Your task to perform on an android device: Open calendar and show me the third week of next month Image 0: 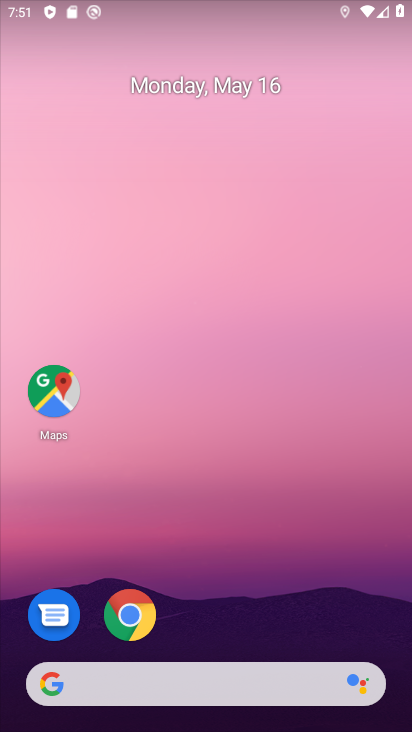
Step 0: click (247, 88)
Your task to perform on an android device: Open calendar and show me the third week of next month Image 1: 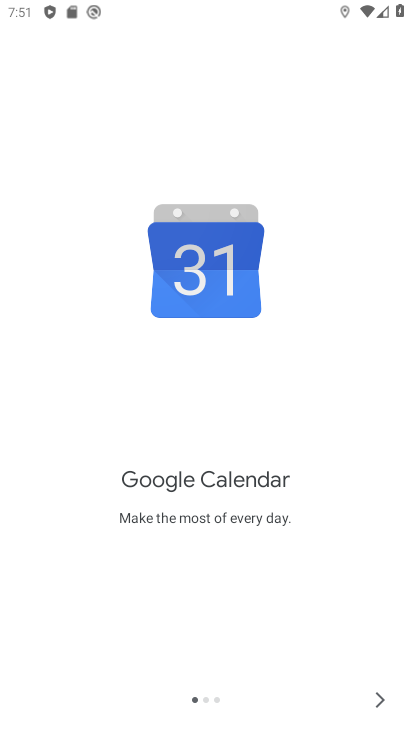
Step 1: click (385, 696)
Your task to perform on an android device: Open calendar and show me the third week of next month Image 2: 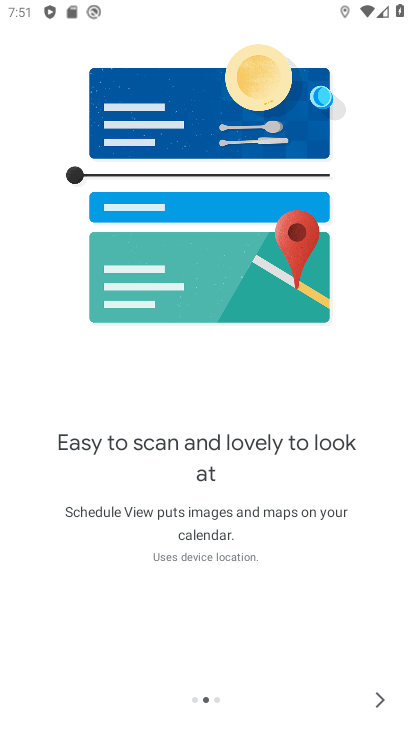
Step 2: click (385, 696)
Your task to perform on an android device: Open calendar and show me the third week of next month Image 3: 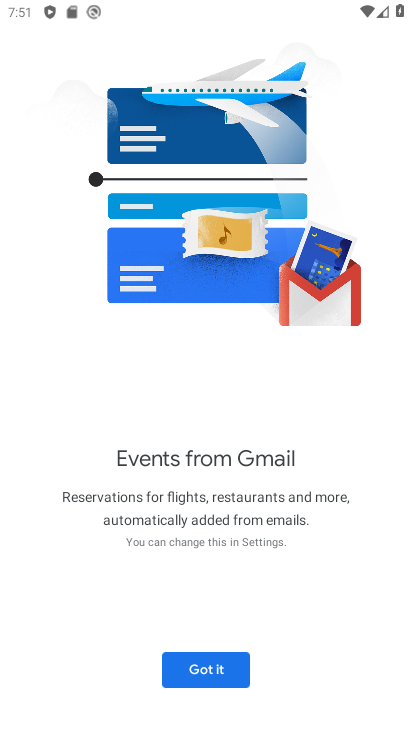
Step 3: click (385, 696)
Your task to perform on an android device: Open calendar and show me the third week of next month Image 4: 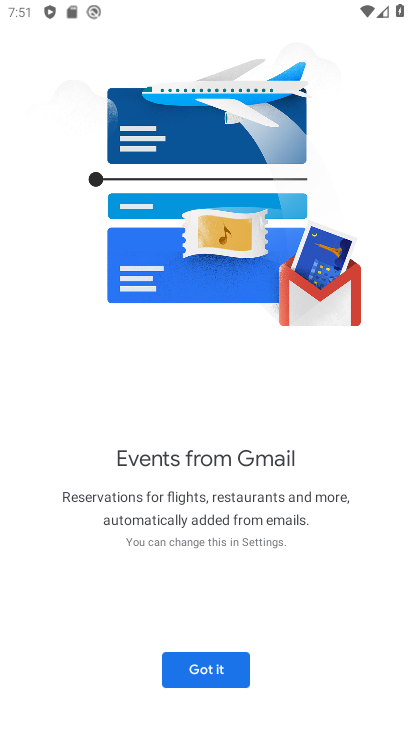
Step 4: click (181, 671)
Your task to perform on an android device: Open calendar and show me the third week of next month Image 5: 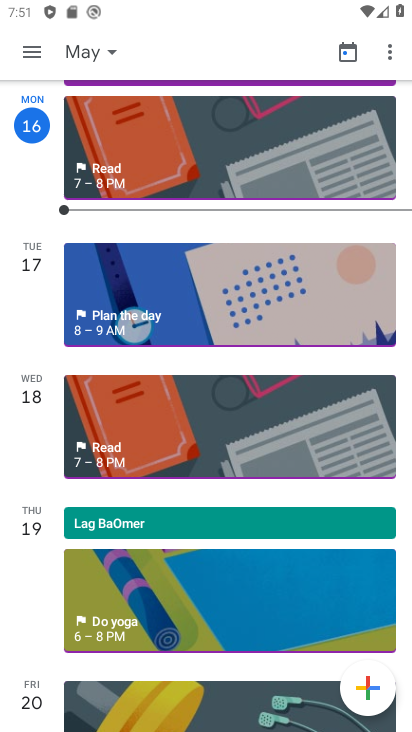
Step 5: click (99, 58)
Your task to perform on an android device: Open calendar and show me the third week of next month Image 6: 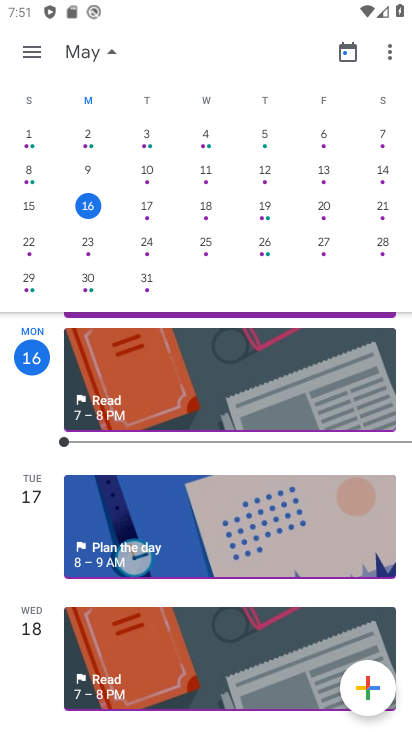
Step 6: drag from (373, 282) to (0, 248)
Your task to perform on an android device: Open calendar and show me the third week of next month Image 7: 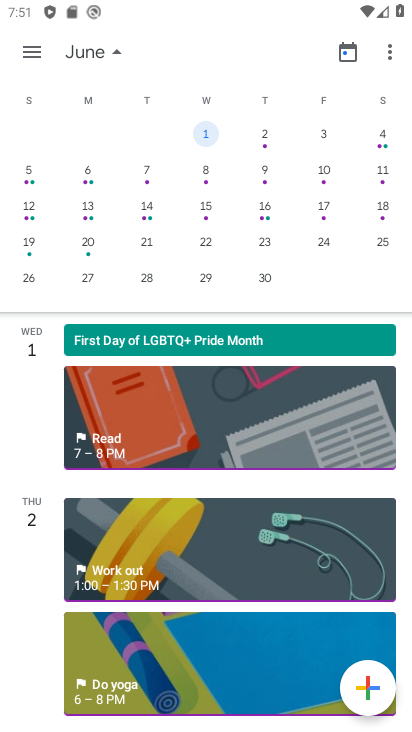
Step 7: click (264, 211)
Your task to perform on an android device: Open calendar and show me the third week of next month Image 8: 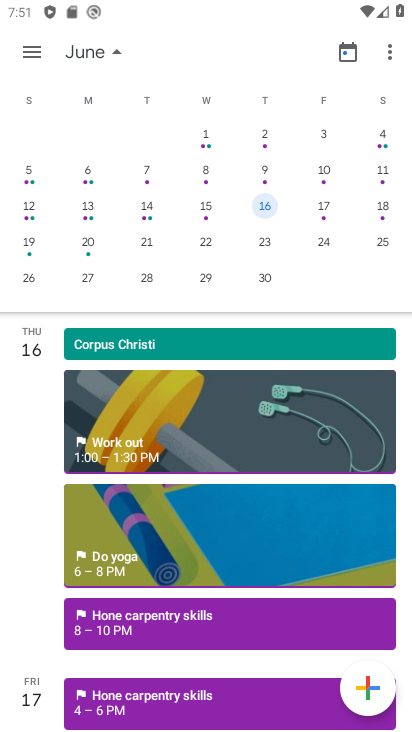
Step 8: task complete